Your task to perform on an android device: change alarm snooze length Image 0: 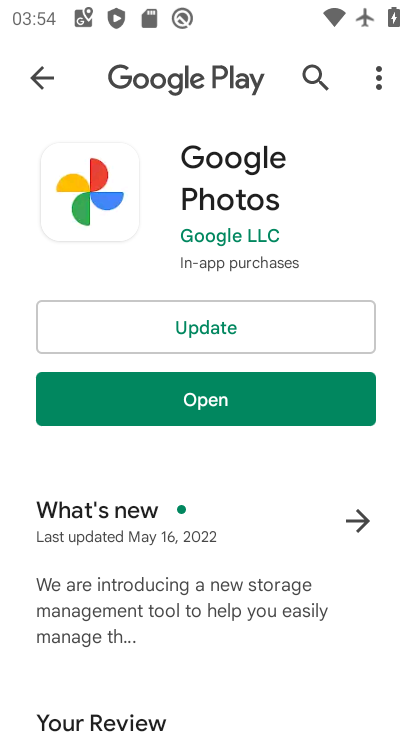
Step 0: press home button
Your task to perform on an android device: change alarm snooze length Image 1: 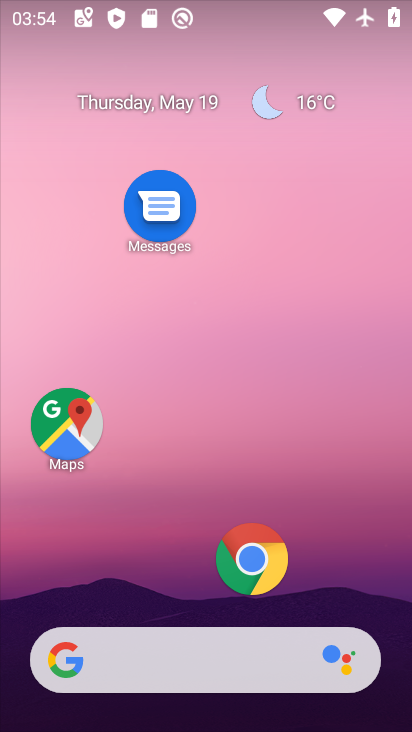
Step 1: drag from (168, 568) to (219, 201)
Your task to perform on an android device: change alarm snooze length Image 2: 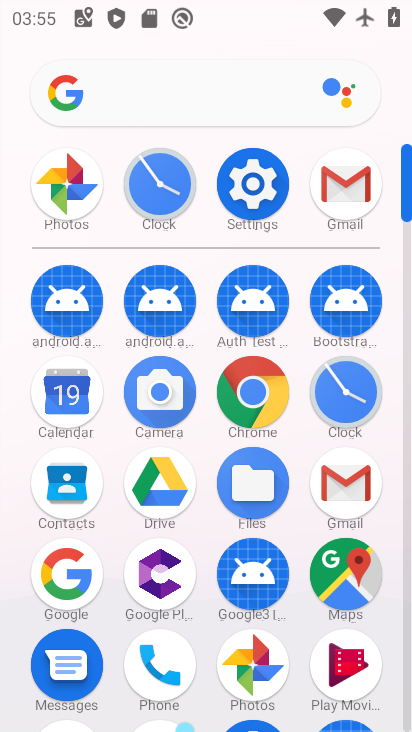
Step 2: click (337, 393)
Your task to perform on an android device: change alarm snooze length Image 3: 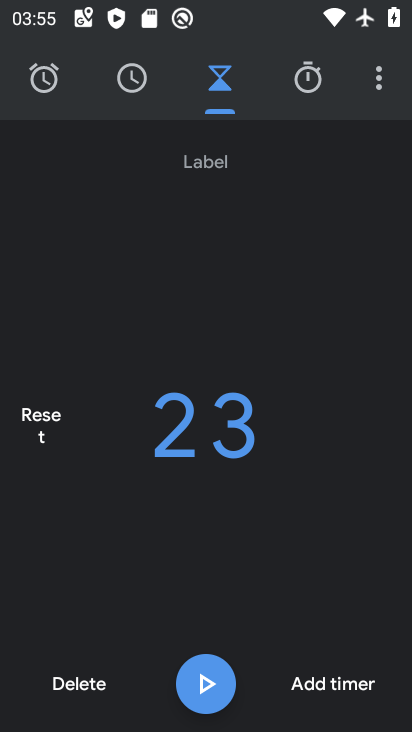
Step 3: click (369, 76)
Your task to perform on an android device: change alarm snooze length Image 4: 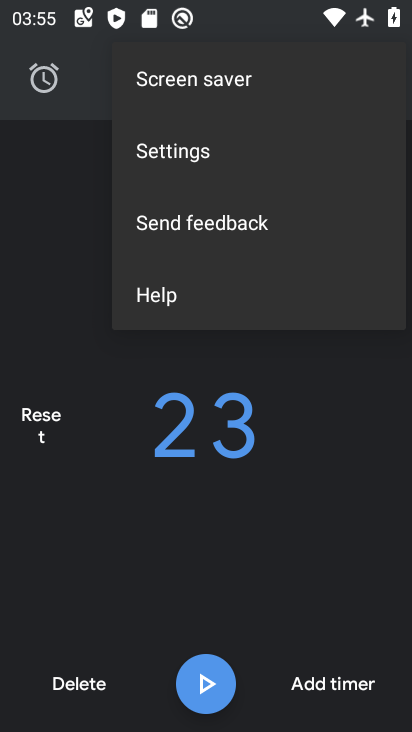
Step 4: click (179, 134)
Your task to perform on an android device: change alarm snooze length Image 5: 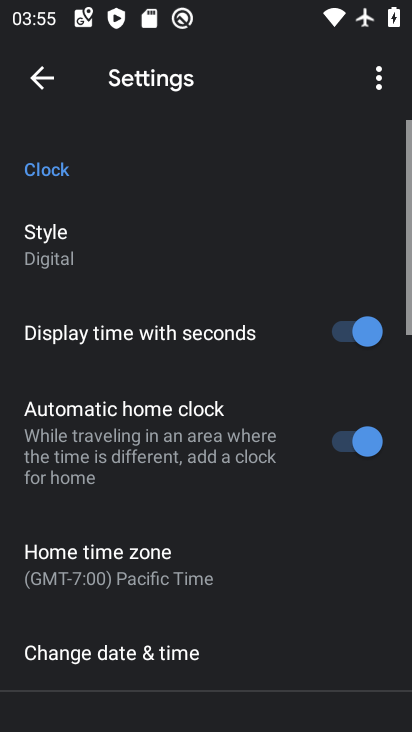
Step 5: drag from (193, 545) to (245, 156)
Your task to perform on an android device: change alarm snooze length Image 6: 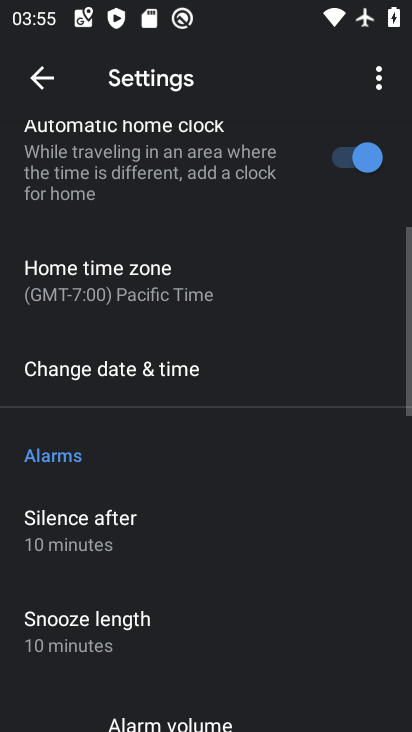
Step 6: drag from (176, 597) to (207, 400)
Your task to perform on an android device: change alarm snooze length Image 7: 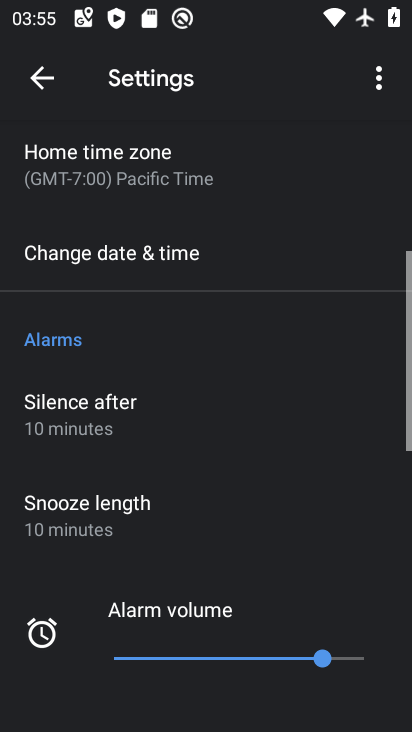
Step 7: click (153, 501)
Your task to perform on an android device: change alarm snooze length Image 8: 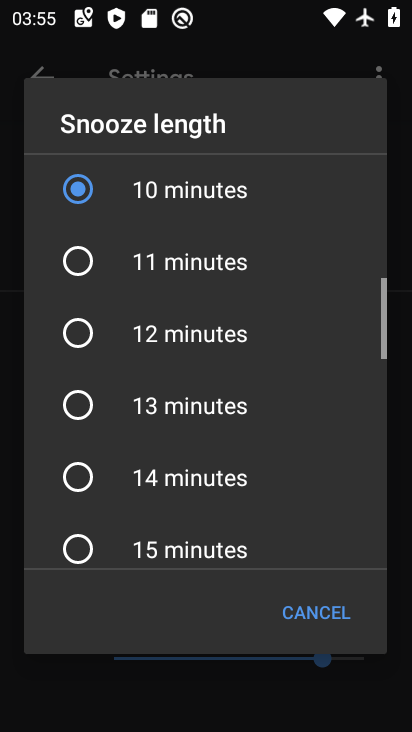
Step 8: click (181, 480)
Your task to perform on an android device: change alarm snooze length Image 9: 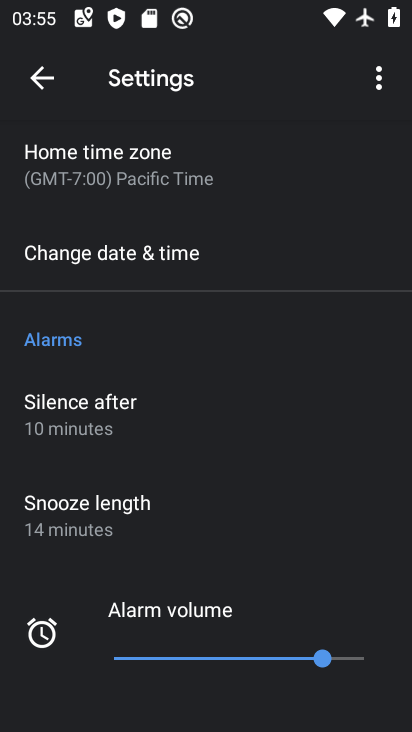
Step 9: task complete